Your task to perform on an android device: open a new tab in the chrome app Image 0: 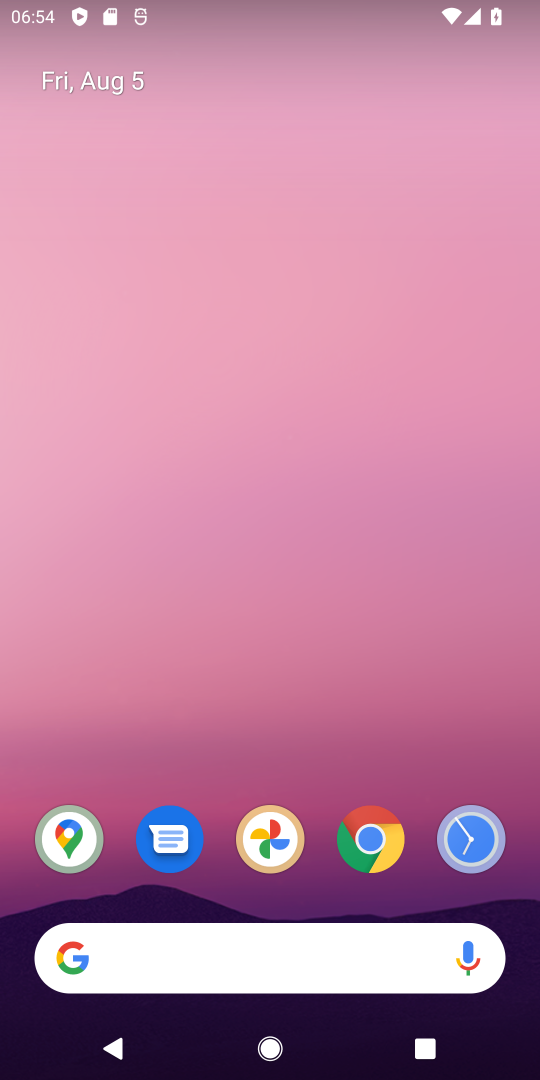
Step 0: click (369, 846)
Your task to perform on an android device: open a new tab in the chrome app Image 1: 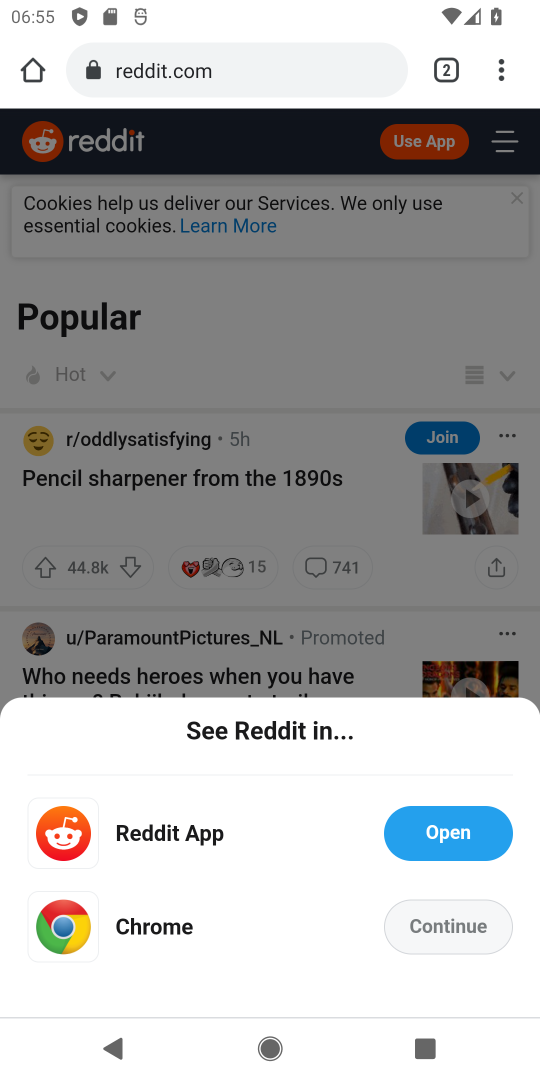
Step 1: click (501, 75)
Your task to perform on an android device: open a new tab in the chrome app Image 2: 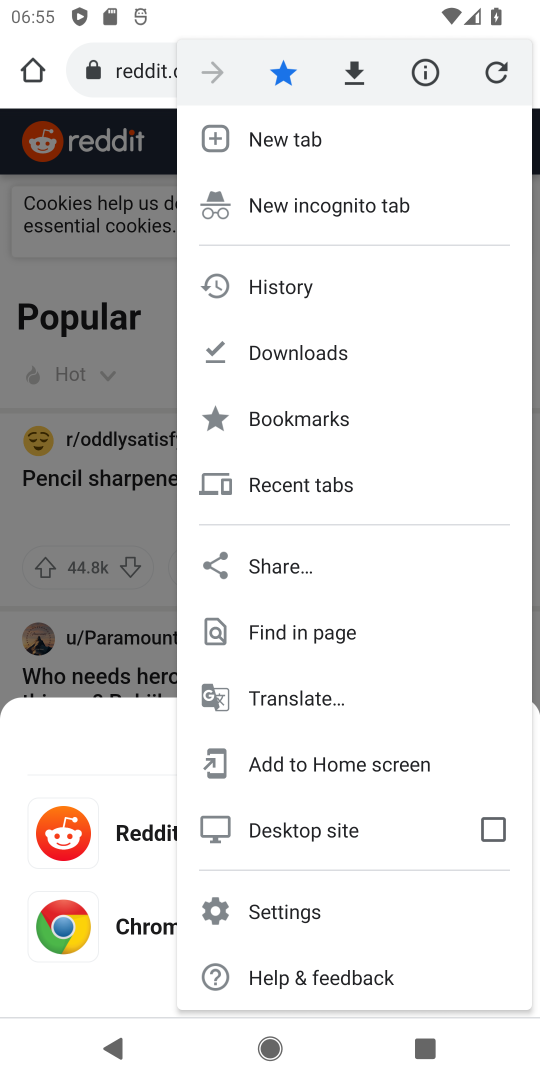
Step 2: click (296, 143)
Your task to perform on an android device: open a new tab in the chrome app Image 3: 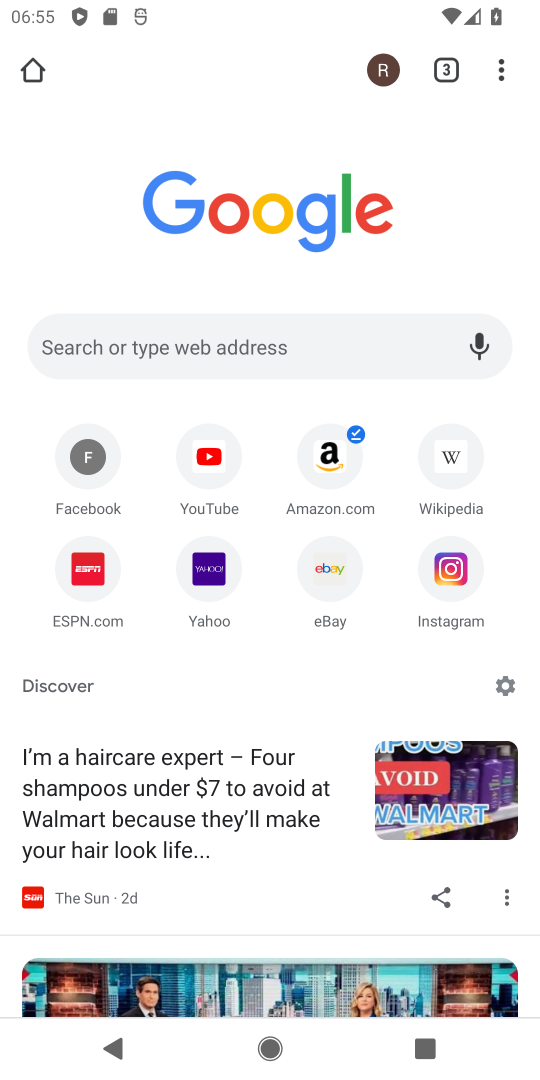
Step 3: task complete